Your task to perform on an android device: turn on the 24-hour format for clock Image 0: 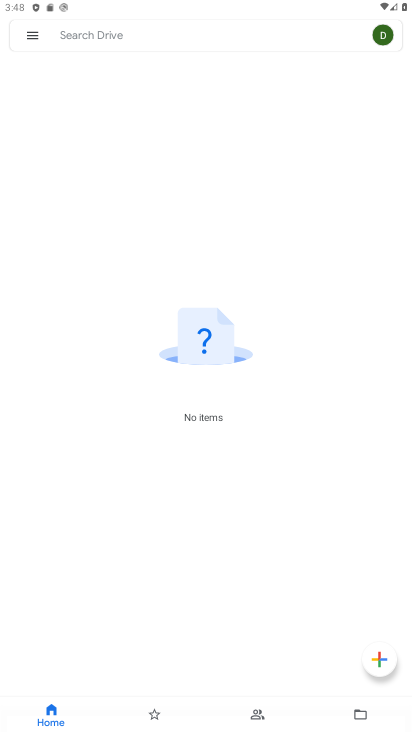
Step 0: press home button
Your task to perform on an android device: turn on the 24-hour format for clock Image 1: 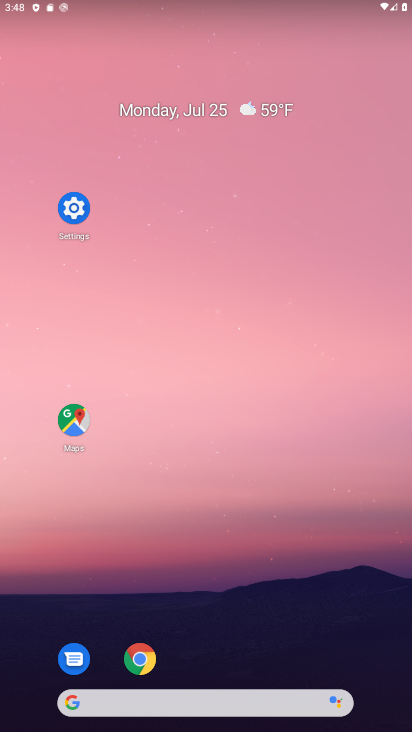
Step 1: click (62, 433)
Your task to perform on an android device: turn on the 24-hour format for clock Image 2: 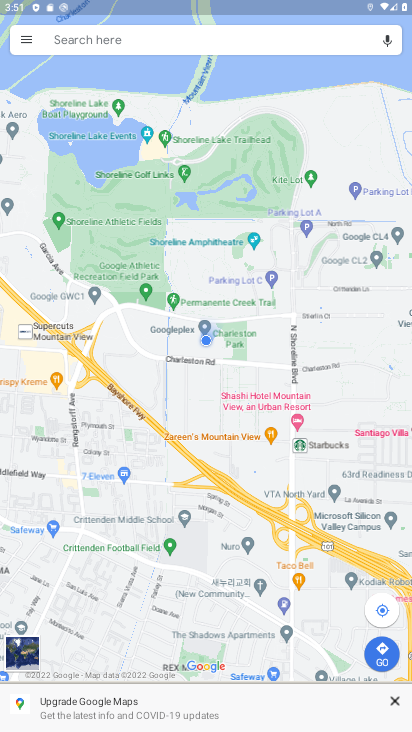
Step 2: press home button
Your task to perform on an android device: turn on the 24-hour format for clock Image 3: 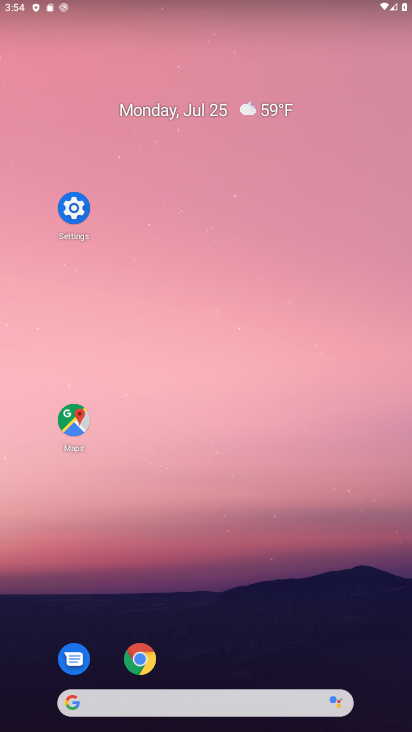
Step 3: drag from (253, 568) to (263, 86)
Your task to perform on an android device: turn on the 24-hour format for clock Image 4: 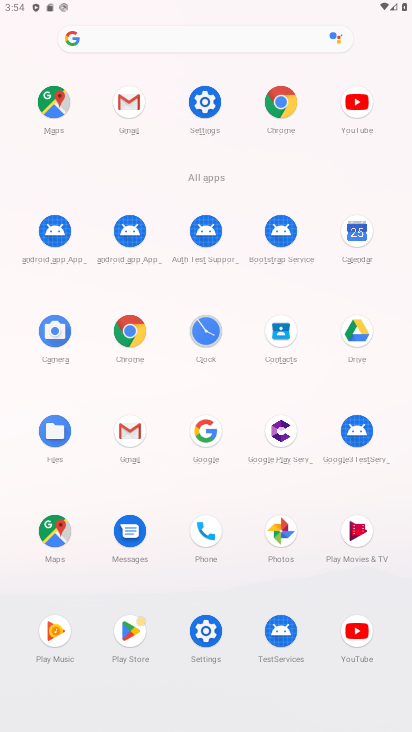
Step 4: click (205, 638)
Your task to perform on an android device: turn on the 24-hour format for clock Image 5: 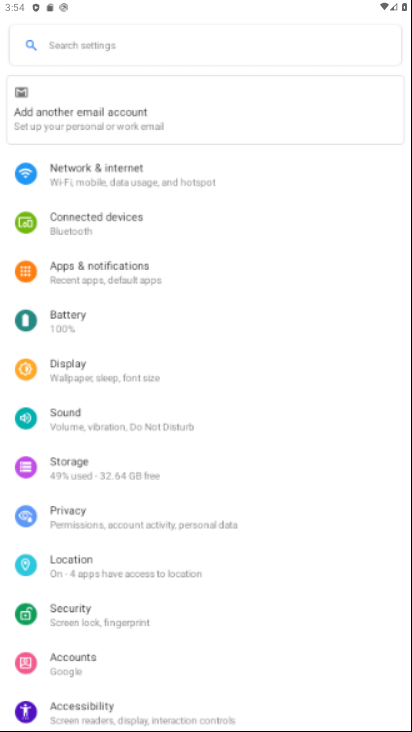
Step 5: task complete